Your task to perform on an android device: turn off smart reply in the gmail app Image 0: 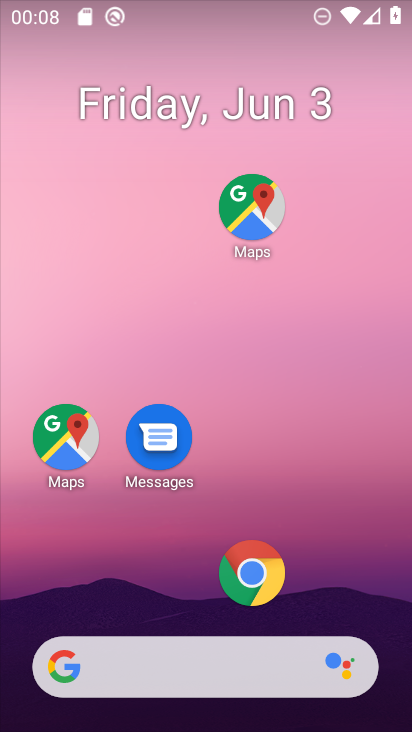
Step 0: drag from (325, 583) to (323, 145)
Your task to perform on an android device: turn off smart reply in the gmail app Image 1: 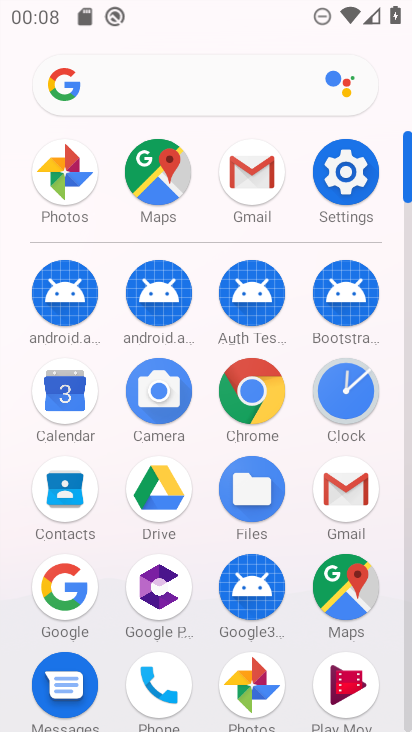
Step 1: click (353, 484)
Your task to perform on an android device: turn off smart reply in the gmail app Image 2: 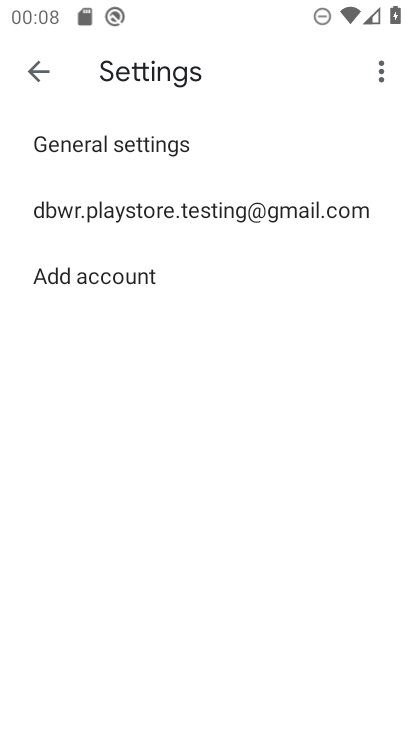
Step 2: click (224, 216)
Your task to perform on an android device: turn off smart reply in the gmail app Image 3: 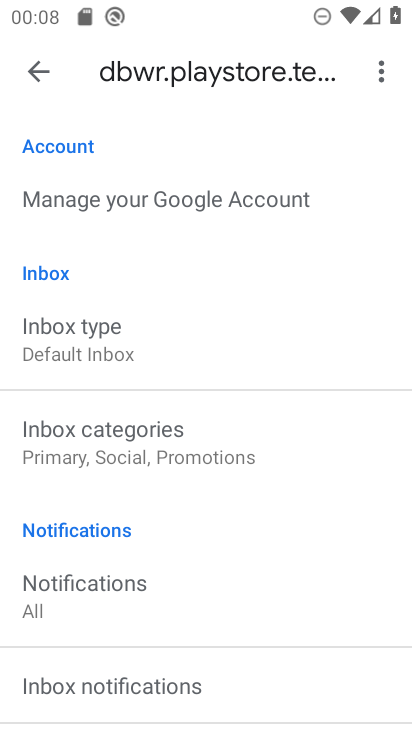
Step 3: drag from (291, 583) to (221, 92)
Your task to perform on an android device: turn off smart reply in the gmail app Image 4: 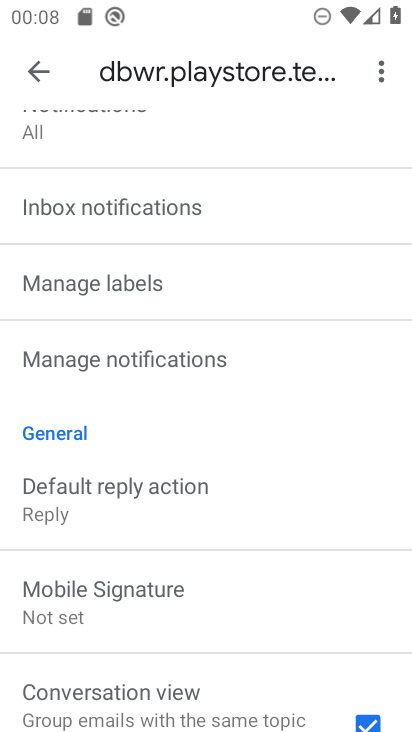
Step 4: drag from (233, 648) to (175, 196)
Your task to perform on an android device: turn off smart reply in the gmail app Image 5: 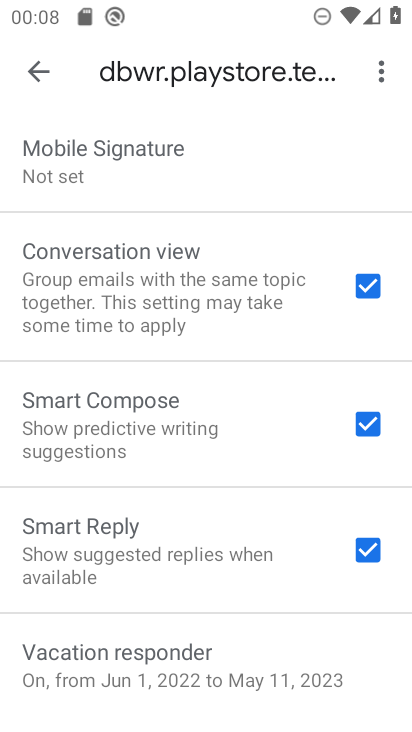
Step 5: click (365, 548)
Your task to perform on an android device: turn off smart reply in the gmail app Image 6: 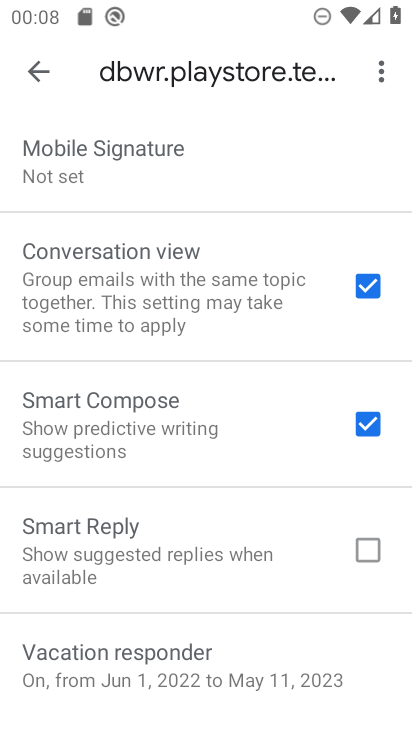
Step 6: task complete